Your task to perform on an android device: open a bookmark in the chrome app Image 0: 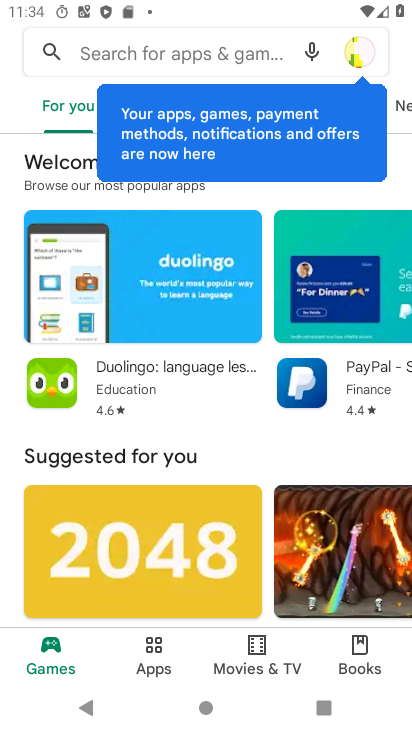
Step 0: press home button
Your task to perform on an android device: open a bookmark in the chrome app Image 1: 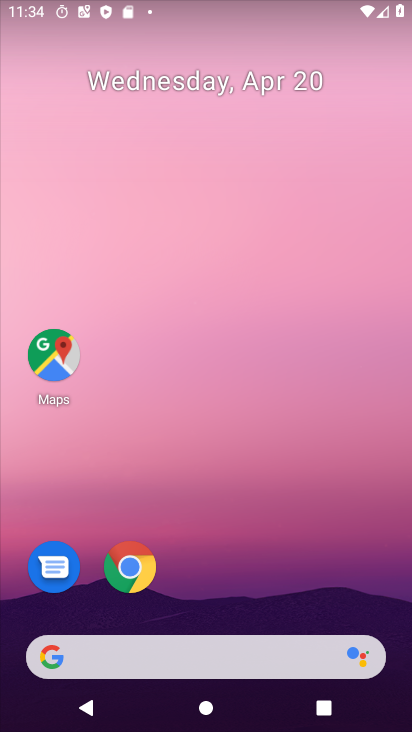
Step 1: click (147, 564)
Your task to perform on an android device: open a bookmark in the chrome app Image 2: 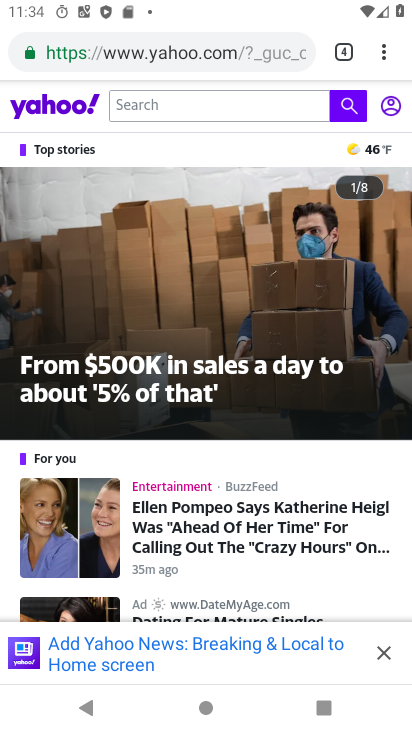
Step 2: click (383, 52)
Your task to perform on an android device: open a bookmark in the chrome app Image 3: 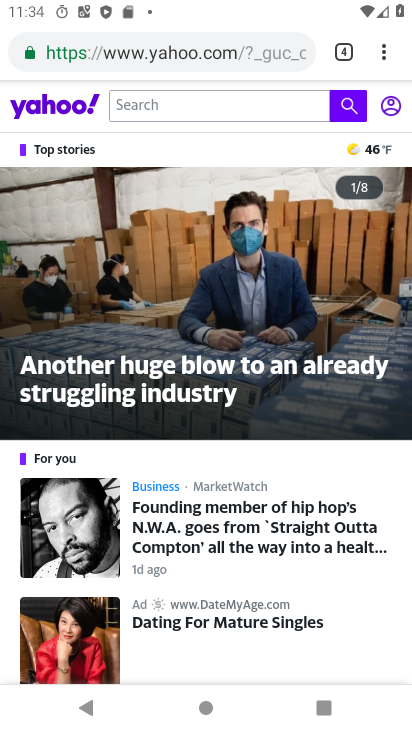
Step 3: click (385, 52)
Your task to perform on an android device: open a bookmark in the chrome app Image 4: 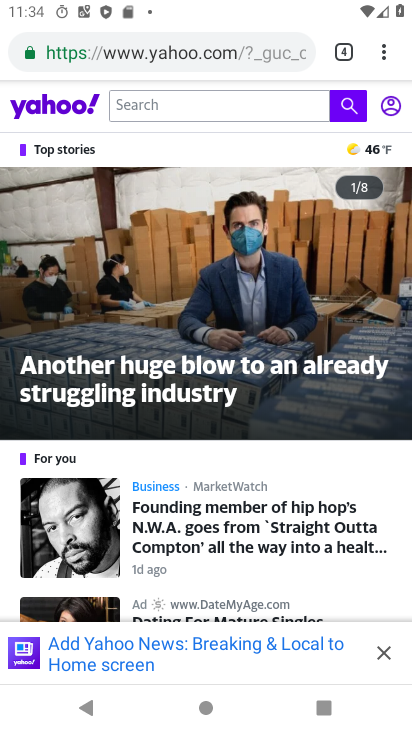
Step 4: click (385, 53)
Your task to perform on an android device: open a bookmark in the chrome app Image 5: 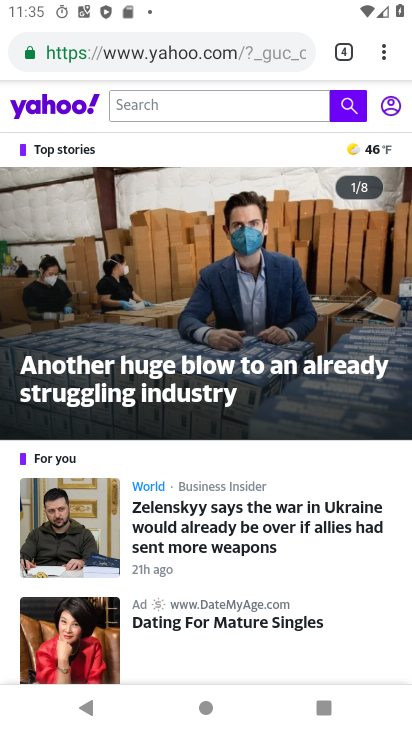
Step 5: click (387, 58)
Your task to perform on an android device: open a bookmark in the chrome app Image 6: 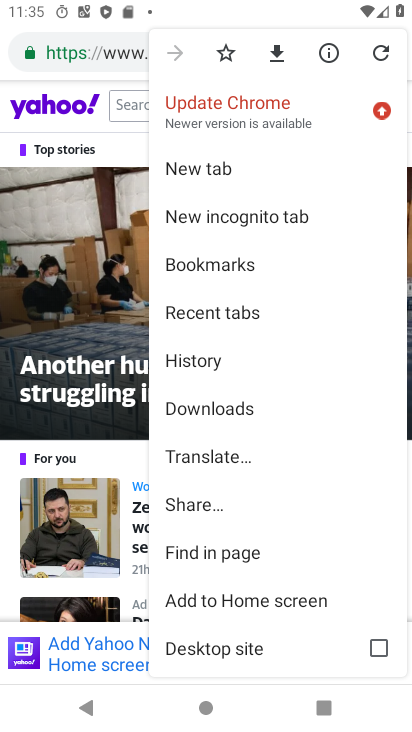
Step 6: click (265, 267)
Your task to perform on an android device: open a bookmark in the chrome app Image 7: 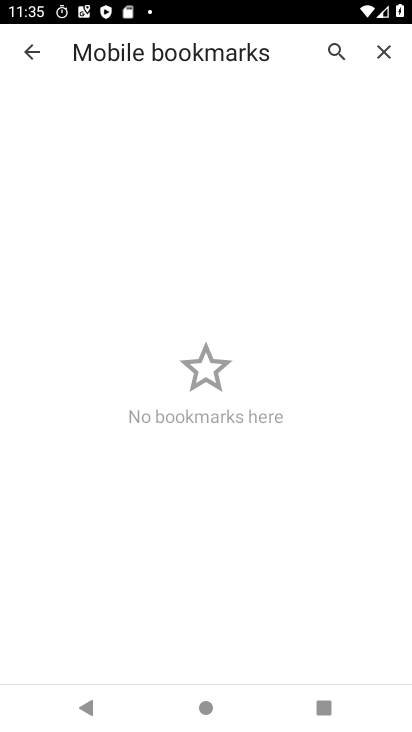
Step 7: task complete